Your task to perform on an android device: turn off notifications settings in the gmail app Image 0: 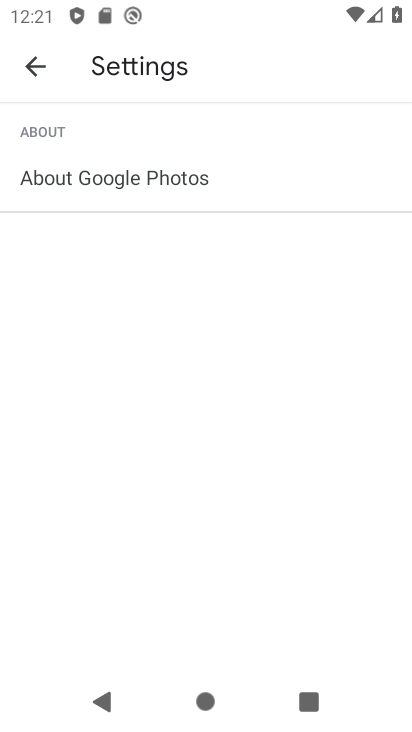
Step 0: press home button
Your task to perform on an android device: turn off notifications settings in the gmail app Image 1: 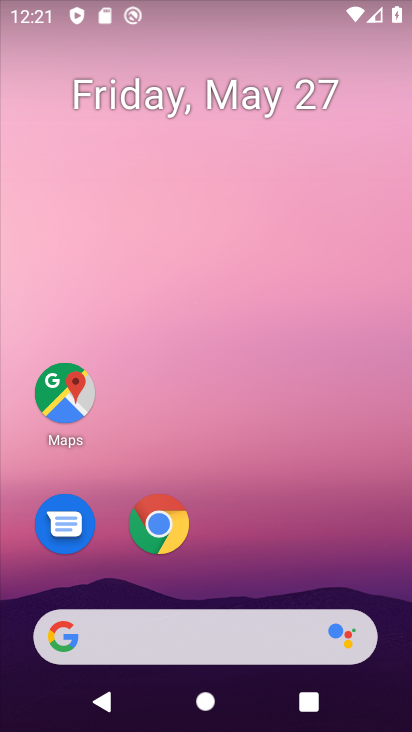
Step 1: drag from (234, 548) to (262, 105)
Your task to perform on an android device: turn off notifications settings in the gmail app Image 2: 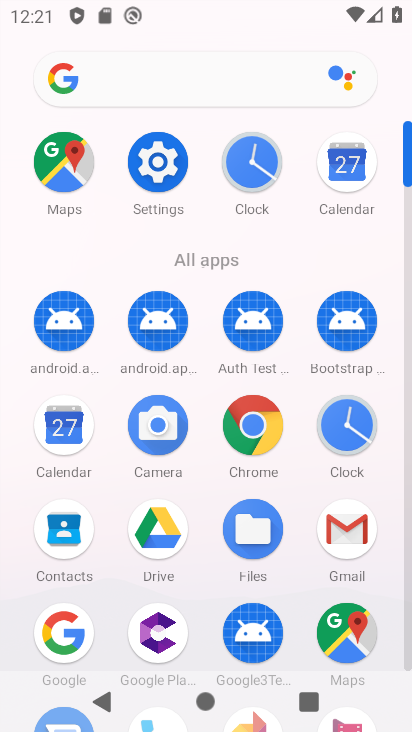
Step 2: click (351, 524)
Your task to perform on an android device: turn off notifications settings in the gmail app Image 3: 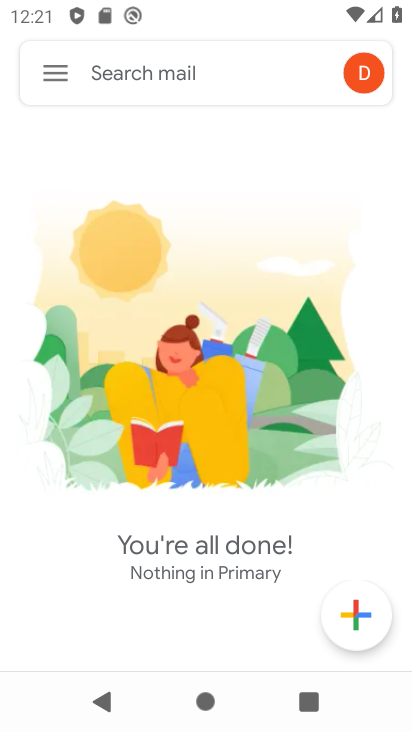
Step 3: click (60, 68)
Your task to perform on an android device: turn off notifications settings in the gmail app Image 4: 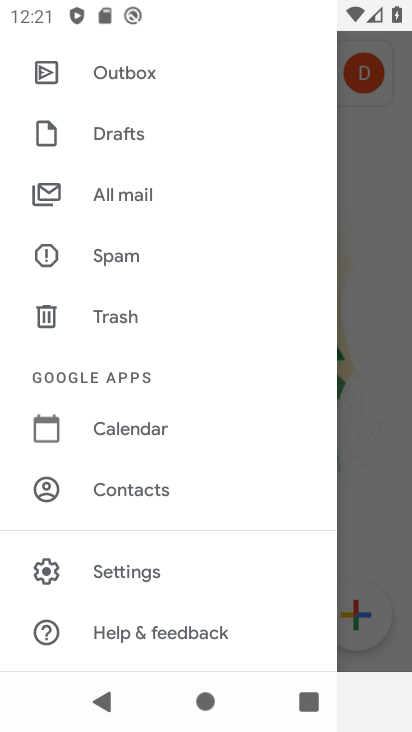
Step 4: click (165, 570)
Your task to perform on an android device: turn off notifications settings in the gmail app Image 5: 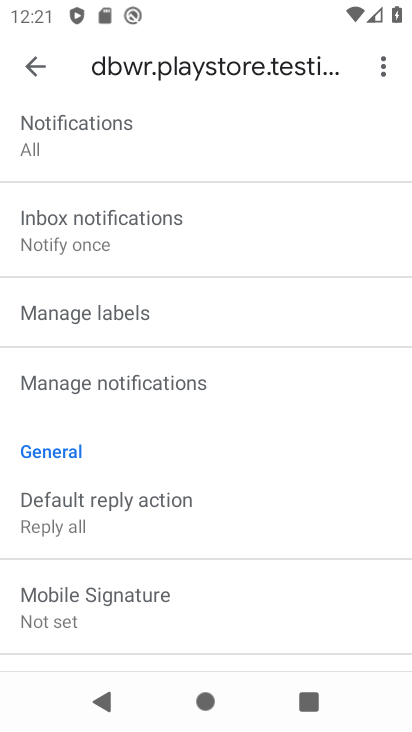
Step 5: click (217, 369)
Your task to perform on an android device: turn off notifications settings in the gmail app Image 6: 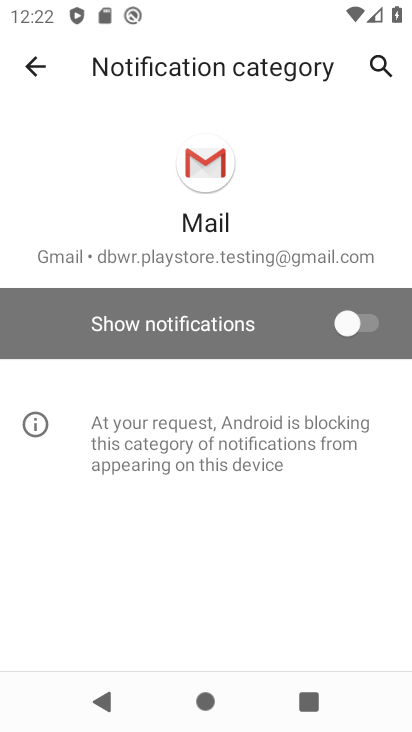
Step 6: task complete